Your task to perform on an android device: Add macbook to the cart on amazon.com, then select checkout. Image 0: 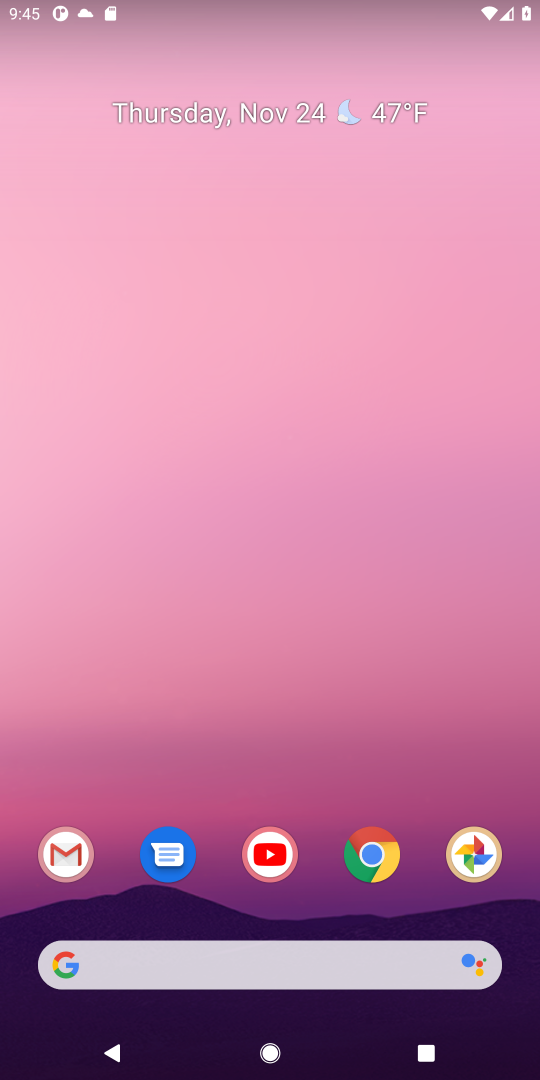
Step 0: click (378, 857)
Your task to perform on an android device: Add macbook to the cart on amazon.com, then select checkout. Image 1: 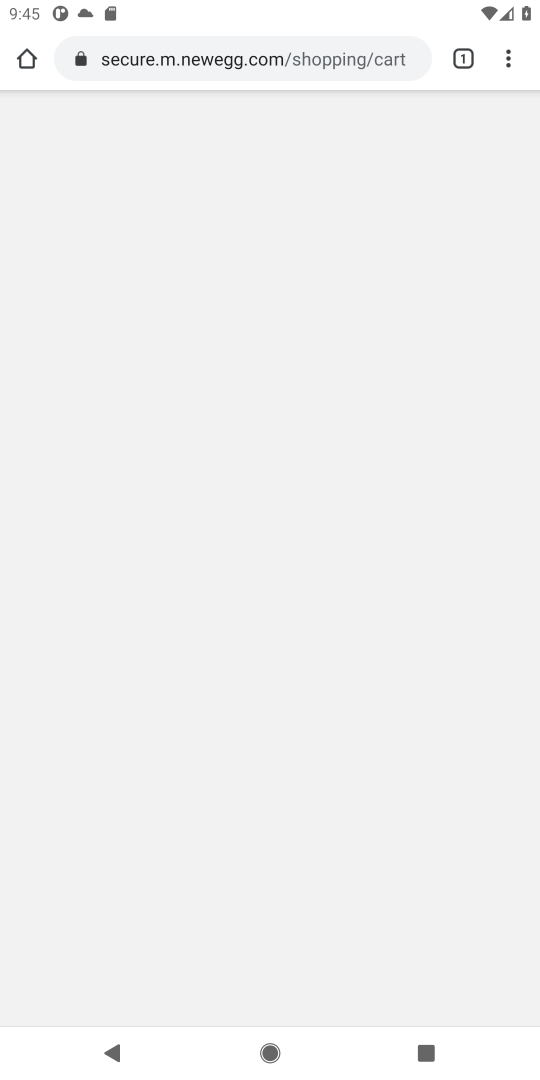
Step 1: click (228, 66)
Your task to perform on an android device: Add macbook to the cart on amazon.com, then select checkout. Image 2: 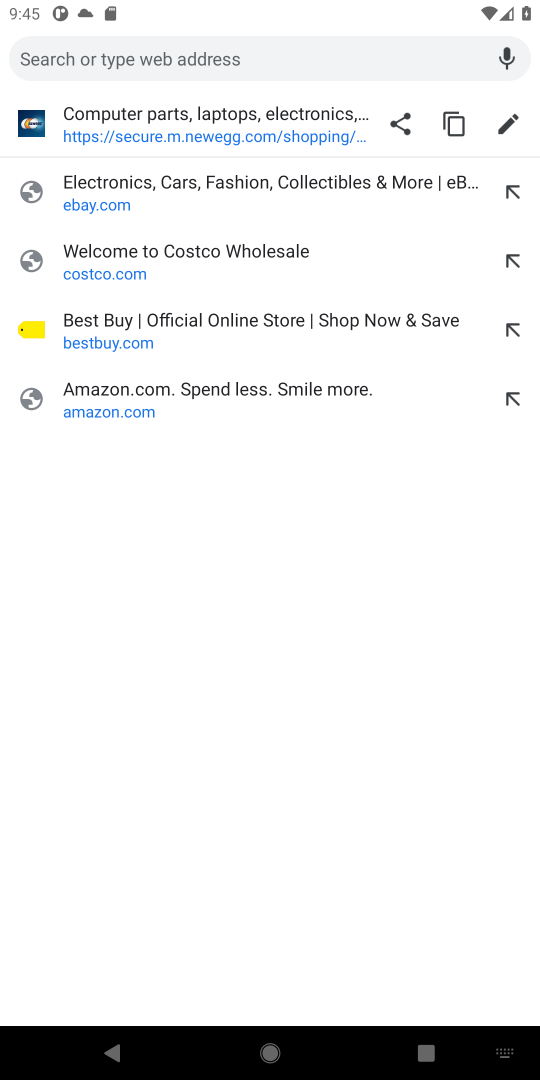
Step 2: click (82, 419)
Your task to perform on an android device: Add macbook to the cart on amazon.com, then select checkout. Image 3: 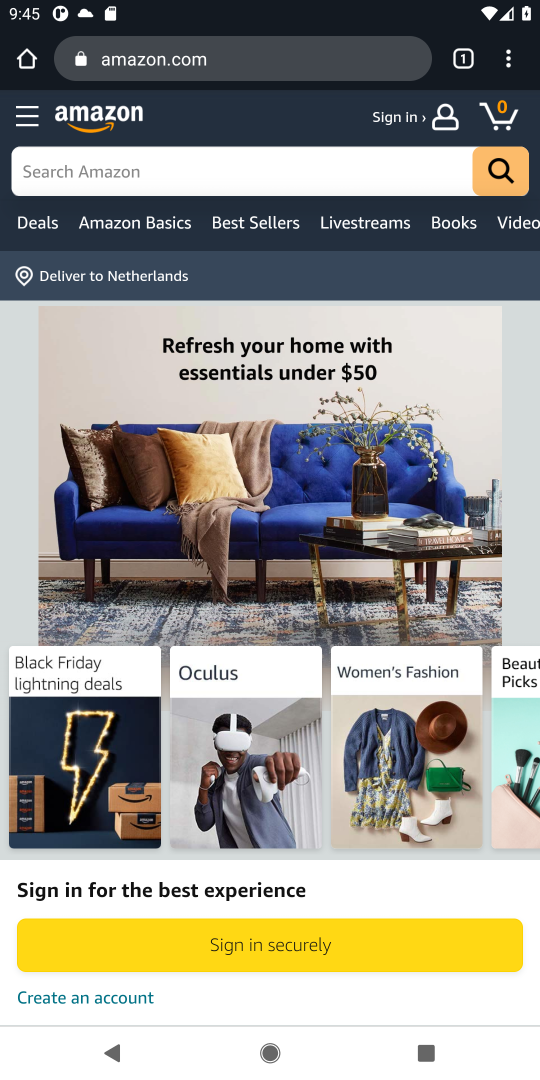
Step 3: click (58, 177)
Your task to perform on an android device: Add macbook to the cart on amazon.com, then select checkout. Image 4: 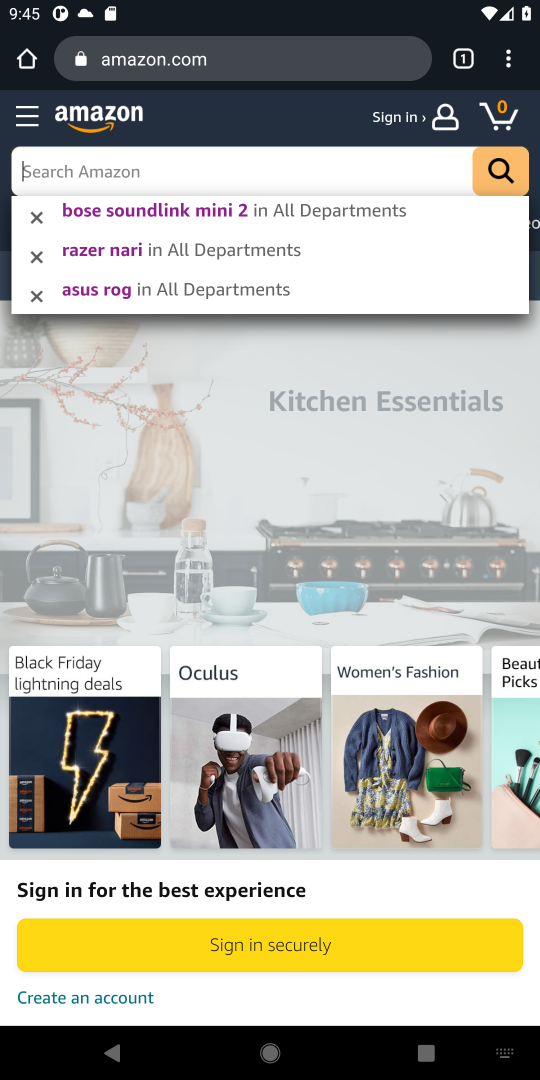
Step 4: type "macbook"
Your task to perform on an android device: Add macbook to the cart on amazon.com, then select checkout. Image 5: 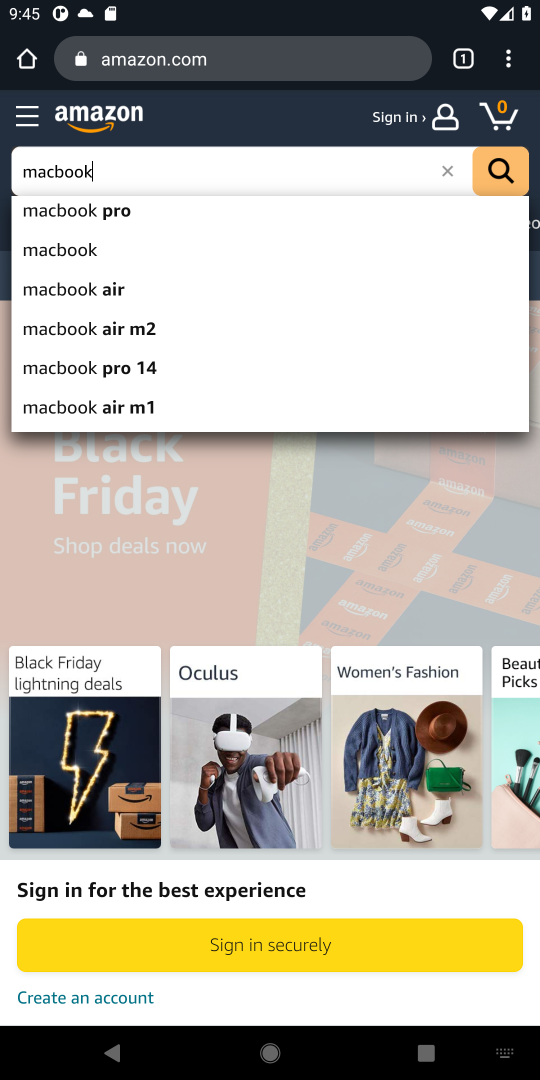
Step 5: click (54, 253)
Your task to perform on an android device: Add macbook to the cart on amazon.com, then select checkout. Image 6: 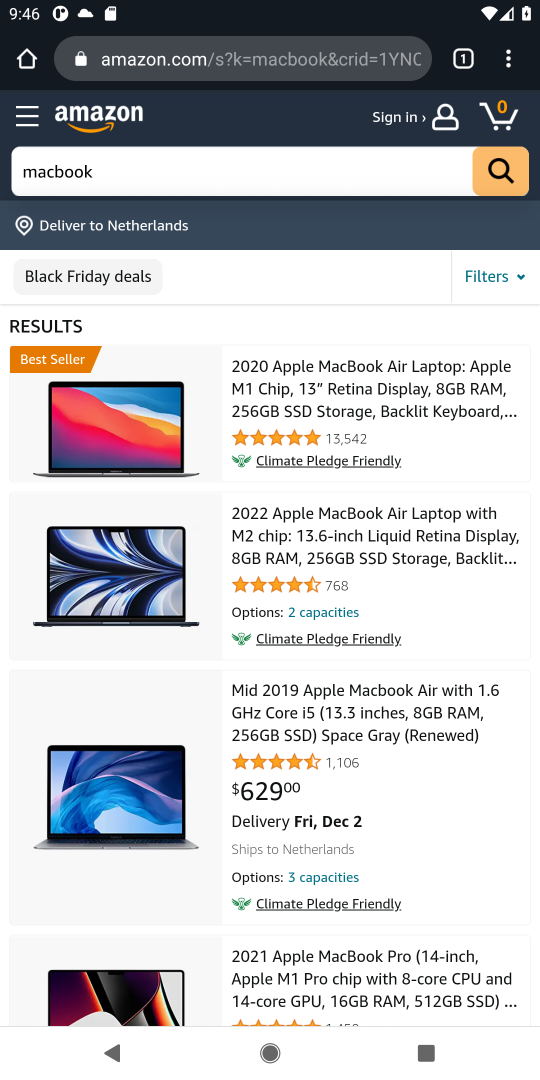
Step 6: drag from (135, 651) to (149, 423)
Your task to perform on an android device: Add macbook to the cart on amazon.com, then select checkout. Image 7: 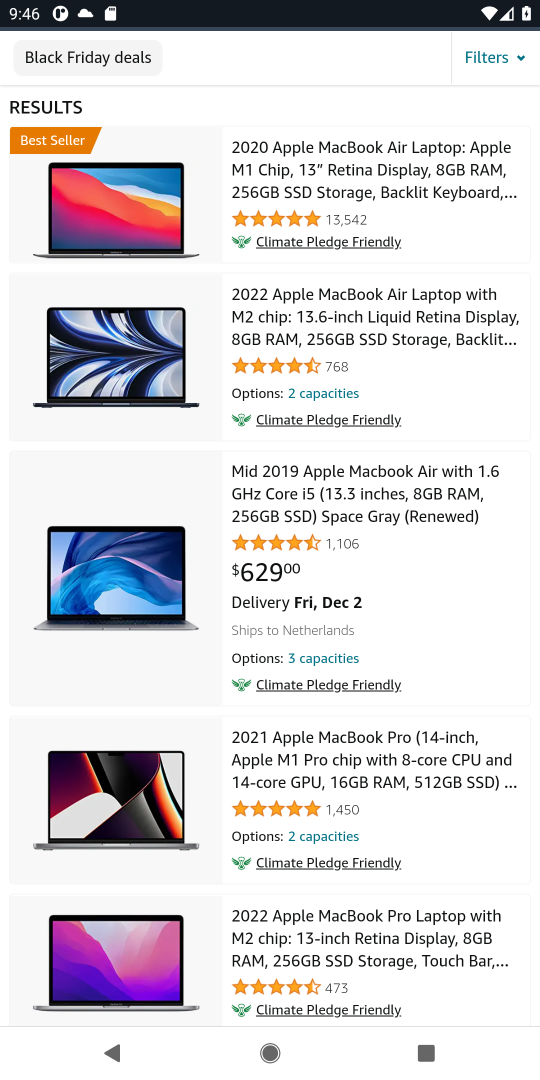
Step 7: click (114, 570)
Your task to perform on an android device: Add macbook to the cart on amazon.com, then select checkout. Image 8: 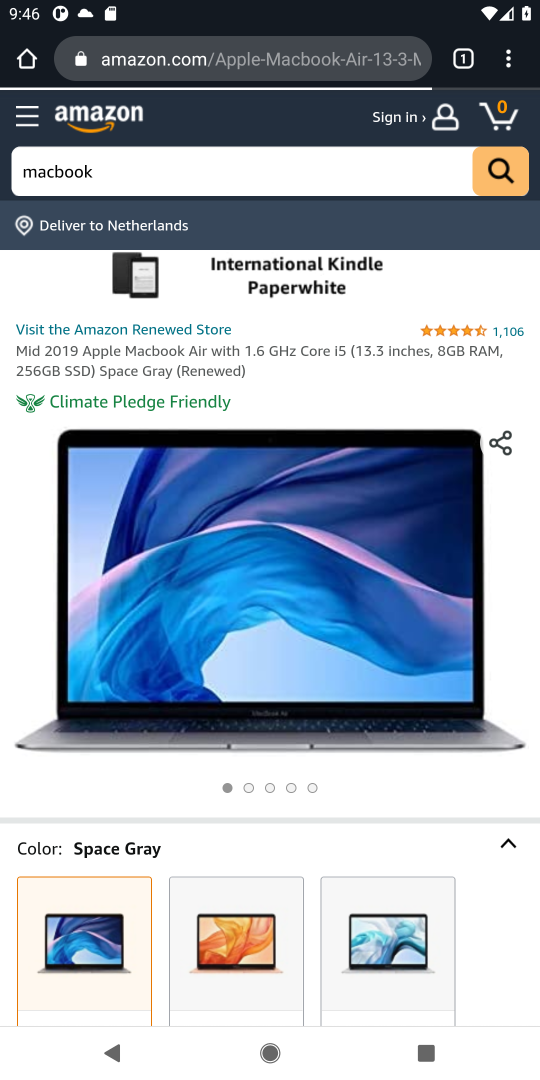
Step 8: drag from (280, 705) to (271, 440)
Your task to perform on an android device: Add macbook to the cart on amazon.com, then select checkout. Image 9: 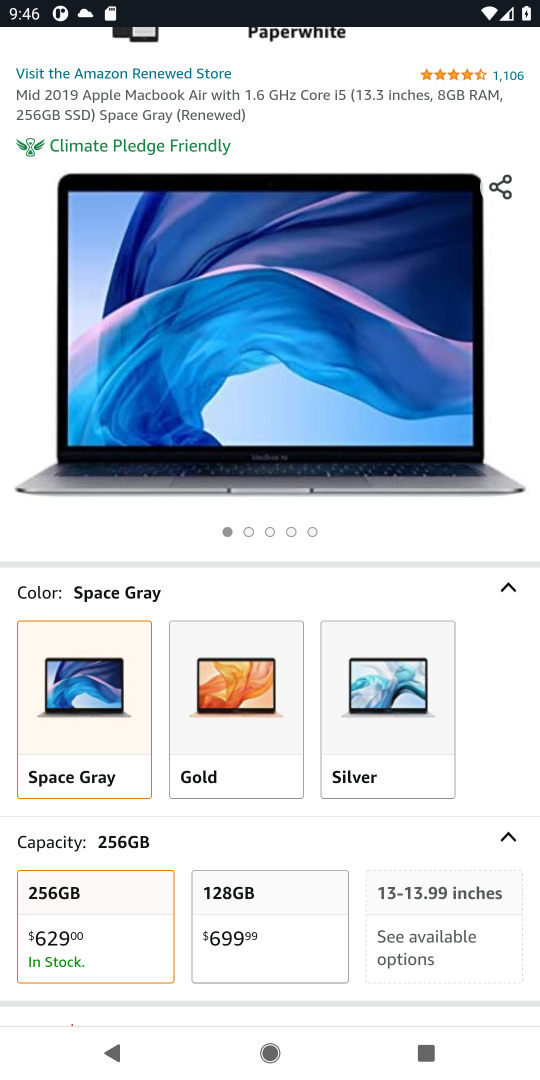
Step 9: drag from (241, 807) to (241, 379)
Your task to perform on an android device: Add macbook to the cart on amazon.com, then select checkout. Image 10: 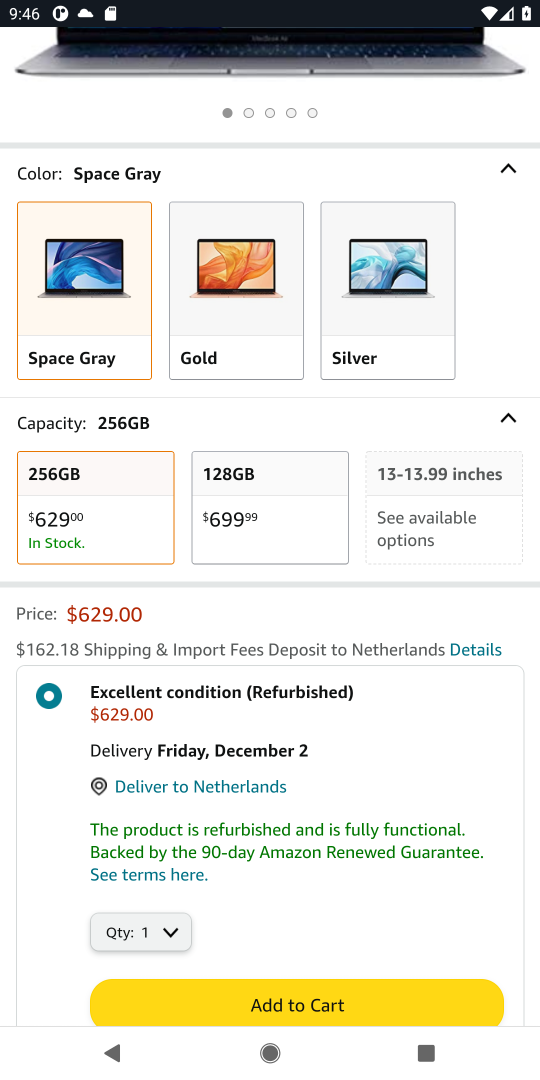
Step 10: click (260, 1004)
Your task to perform on an android device: Add macbook to the cart on amazon.com, then select checkout. Image 11: 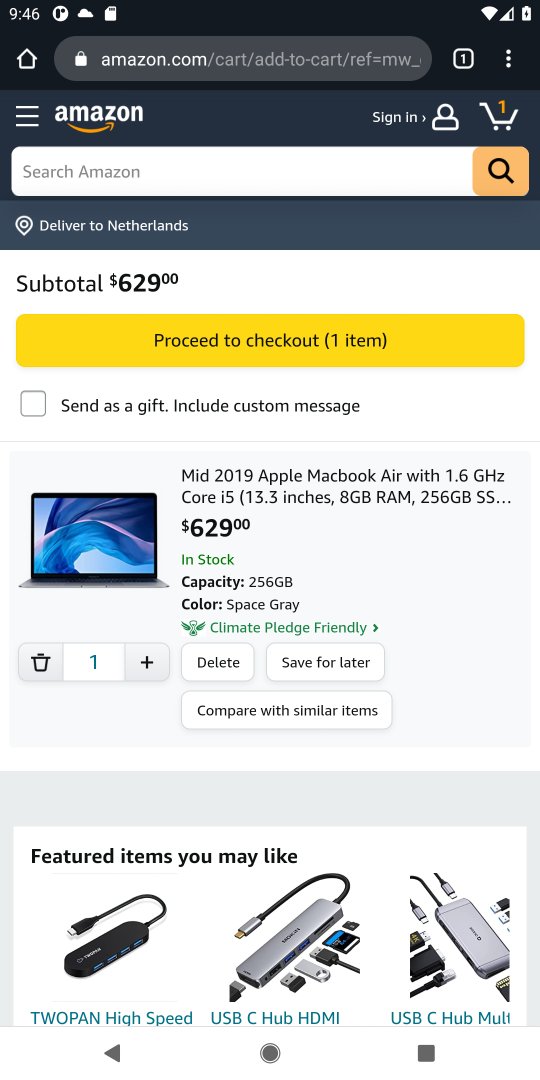
Step 11: click (251, 344)
Your task to perform on an android device: Add macbook to the cart on amazon.com, then select checkout. Image 12: 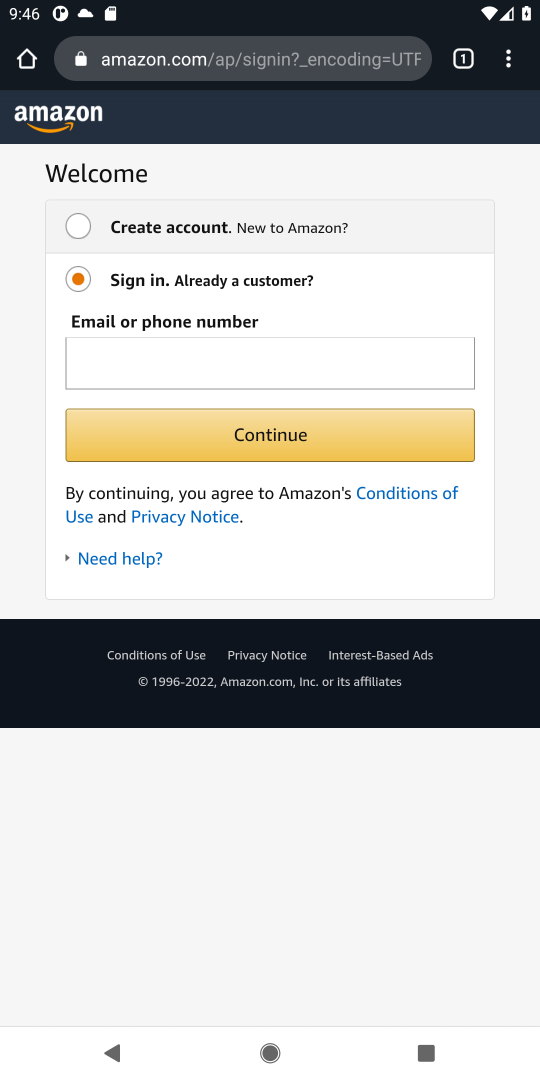
Step 12: task complete